Your task to perform on an android device: Go to network settings Image 0: 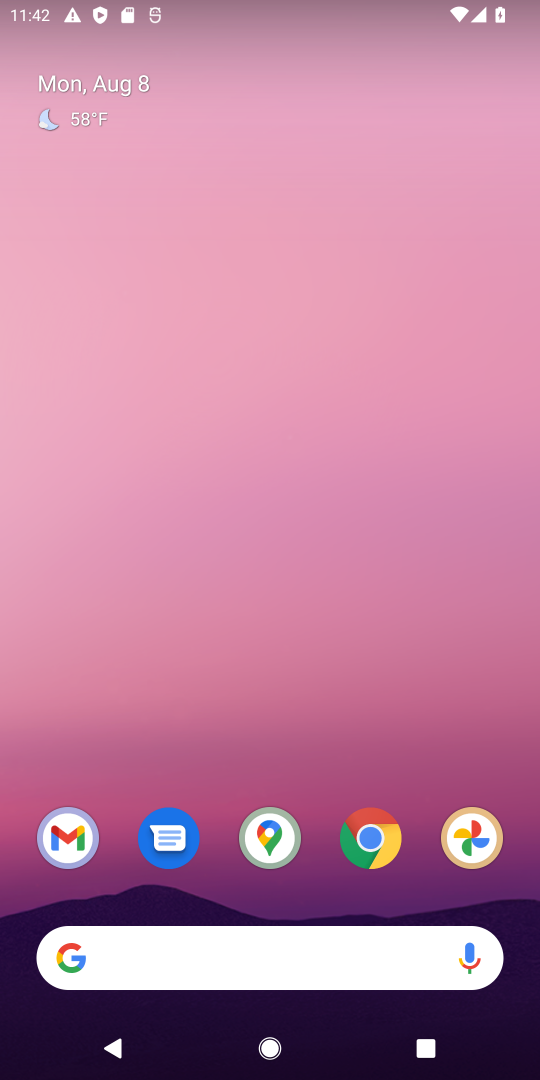
Step 0: press home button
Your task to perform on an android device: Go to network settings Image 1: 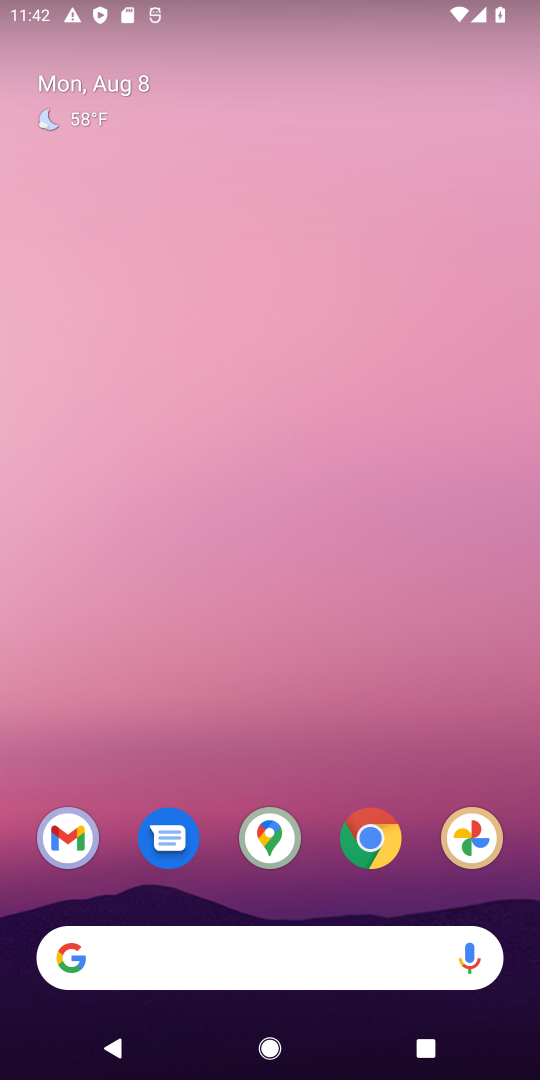
Step 1: drag from (329, 873) to (296, 213)
Your task to perform on an android device: Go to network settings Image 2: 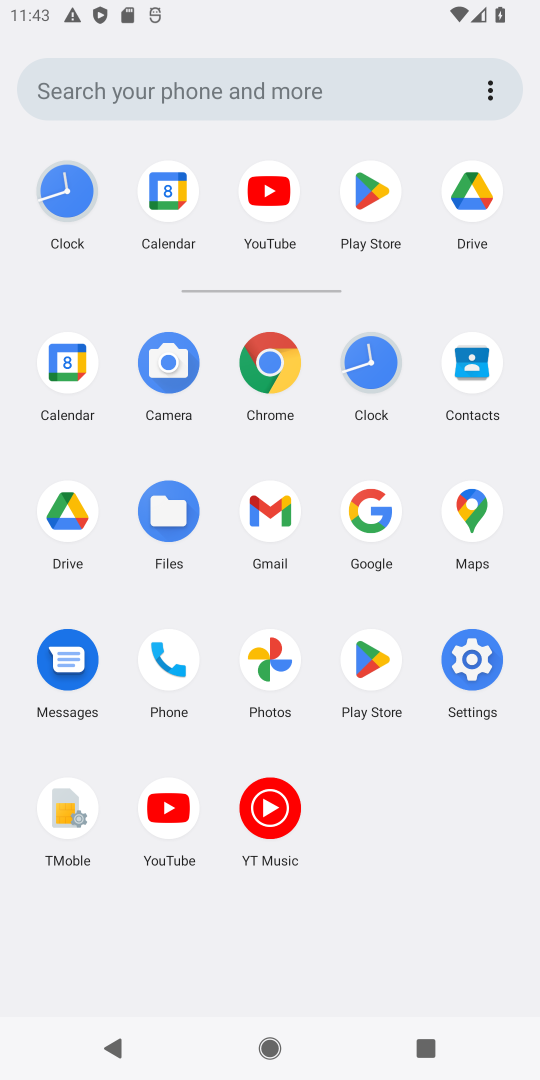
Step 2: click (481, 656)
Your task to perform on an android device: Go to network settings Image 3: 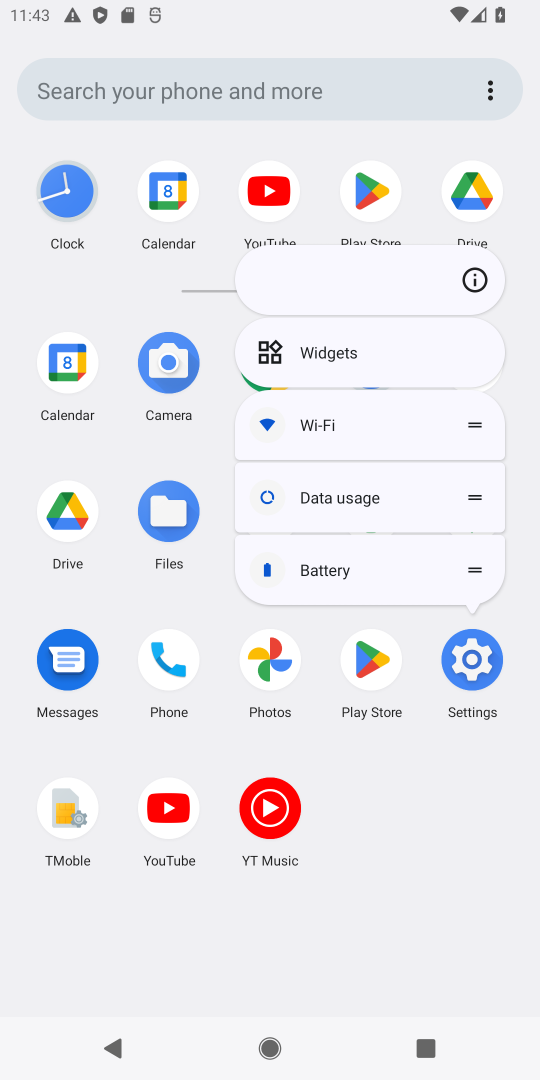
Step 3: click (481, 656)
Your task to perform on an android device: Go to network settings Image 4: 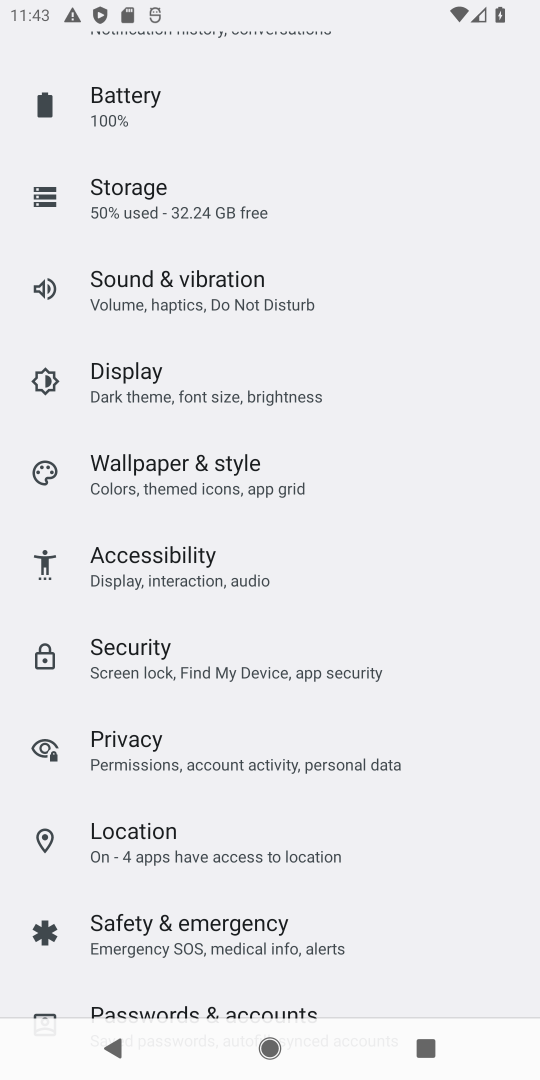
Step 4: drag from (421, 198) to (306, 998)
Your task to perform on an android device: Go to network settings Image 5: 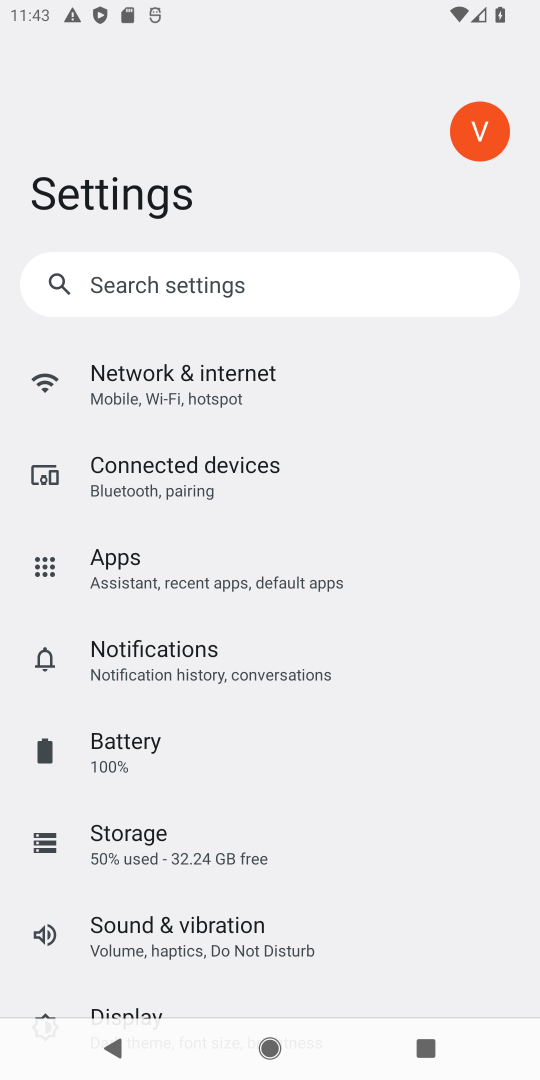
Step 5: click (154, 392)
Your task to perform on an android device: Go to network settings Image 6: 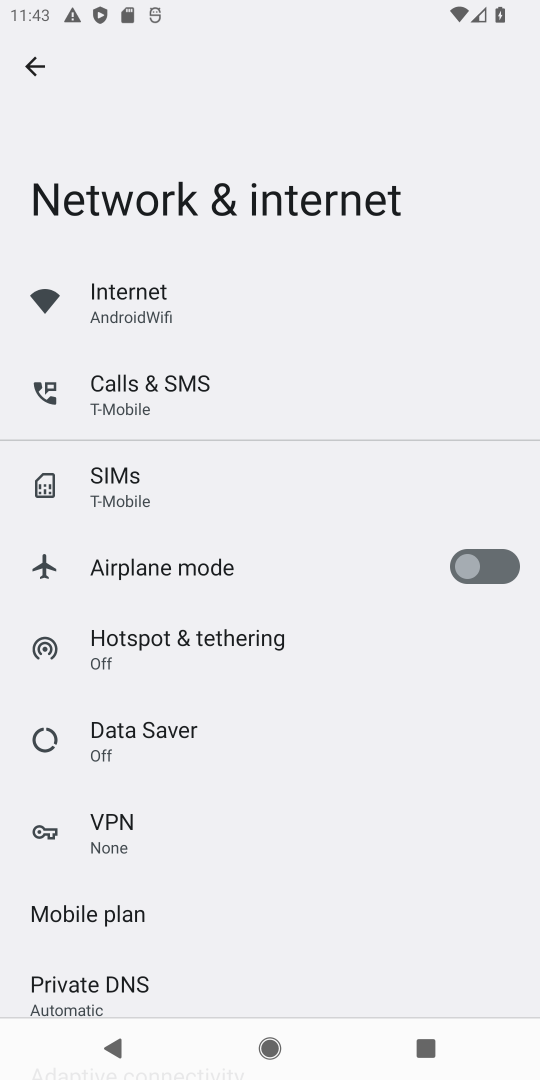
Step 6: task complete